Your task to perform on an android device: Go to Yahoo.com Image 0: 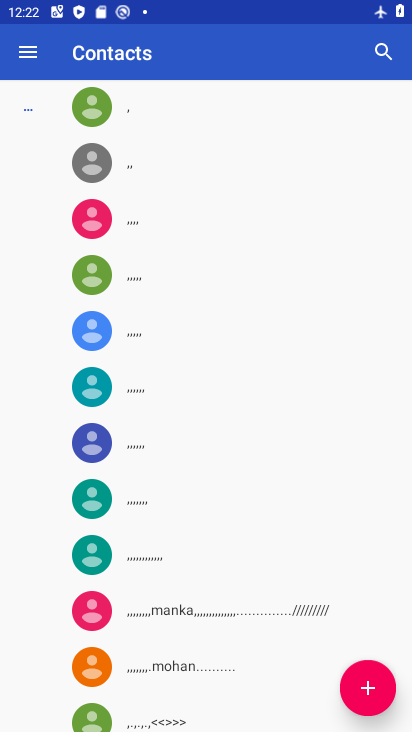
Step 0: press home button
Your task to perform on an android device: Go to Yahoo.com Image 1: 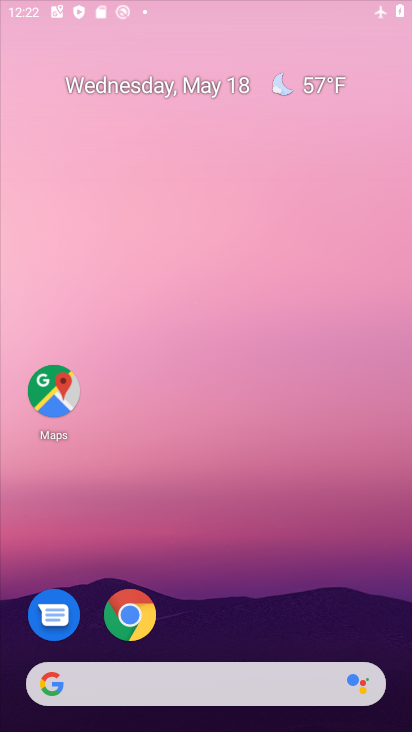
Step 1: drag from (371, 622) to (267, 6)
Your task to perform on an android device: Go to Yahoo.com Image 2: 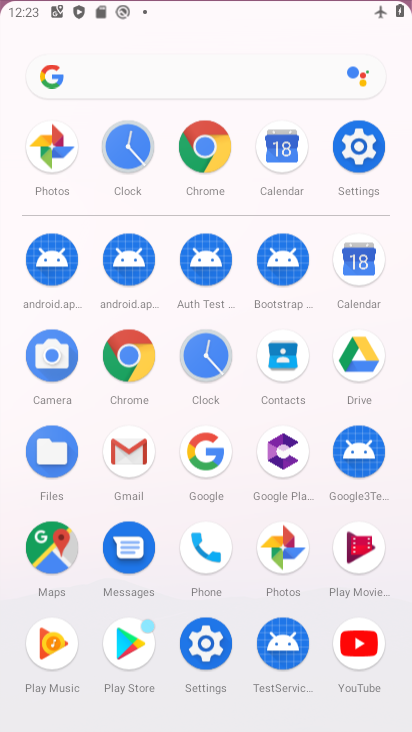
Step 2: click (200, 131)
Your task to perform on an android device: Go to Yahoo.com Image 3: 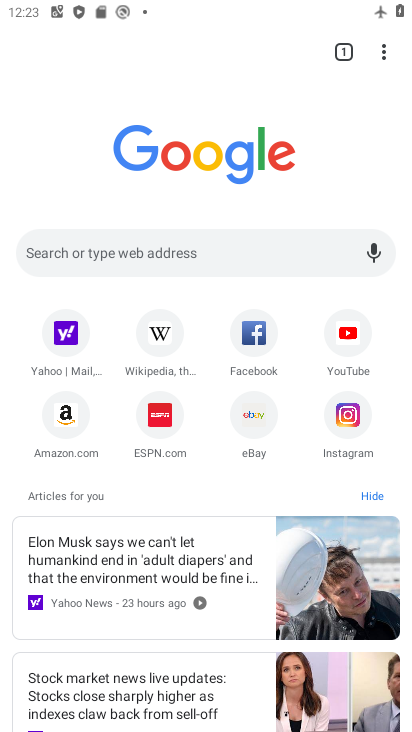
Step 3: click (81, 325)
Your task to perform on an android device: Go to Yahoo.com Image 4: 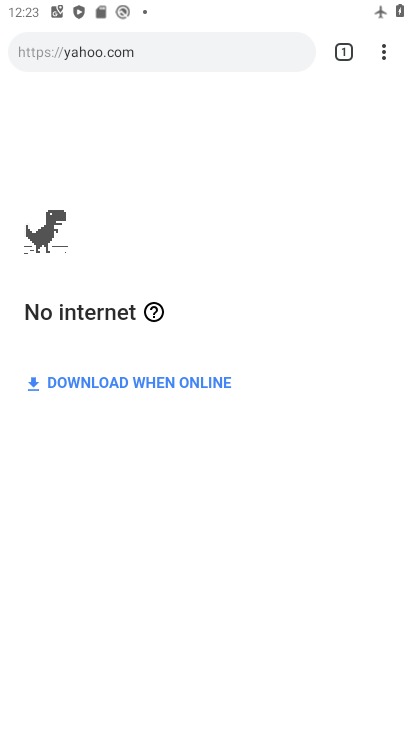
Step 4: task complete